Your task to perform on an android device: Open calendar and show me the fourth week of next month Image 0: 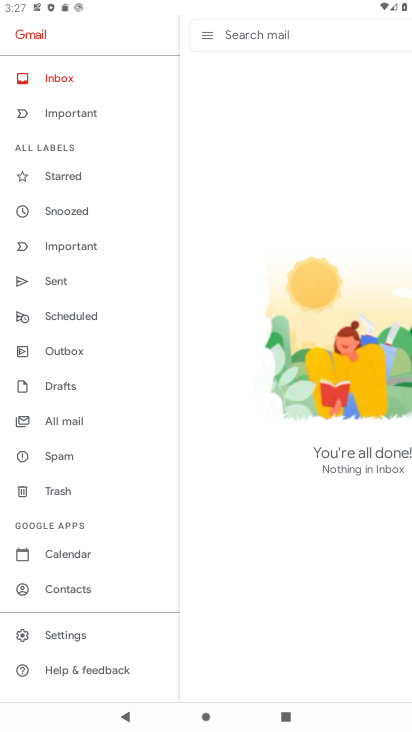
Step 0: press home button
Your task to perform on an android device: Open calendar and show me the fourth week of next month Image 1: 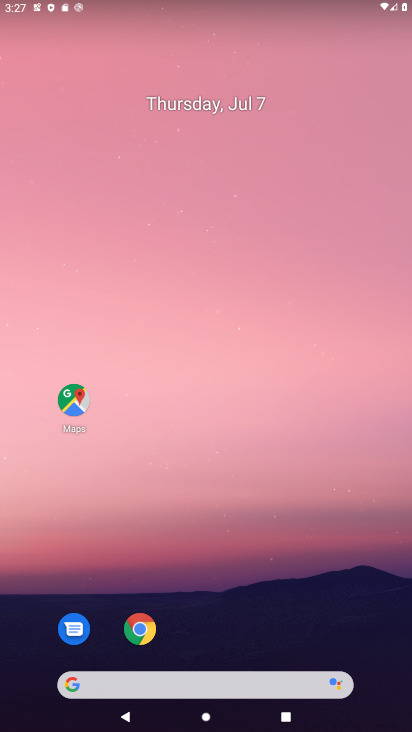
Step 1: drag from (263, 621) to (237, 238)
Your task to perform on an android device: Open calendar and show me the fourth week of next month Image 2: 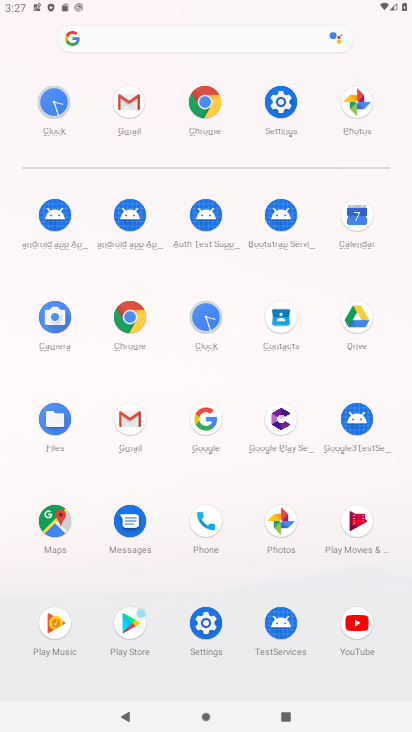
Step 2: click (360, 217)
Your task to perform on an android device: Open calendar and show me the fourth week of next month Image 3: 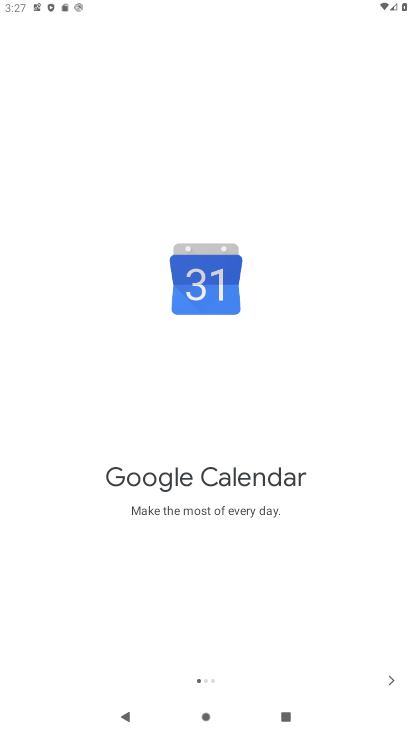
Step 3: click (385, 679)
Your task to perform on an android device: Open calendar and show me the fourth week of next month Image 4: 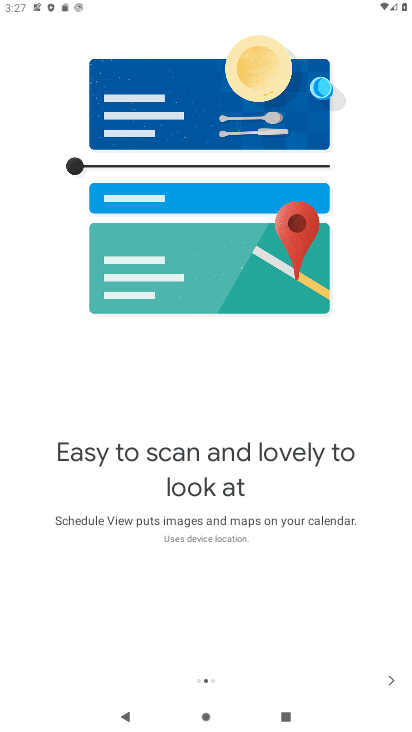
Step 4: click (385, 679)
Your task to perform on an android device: Open calendar and show me the fourth week of next month Image 5: 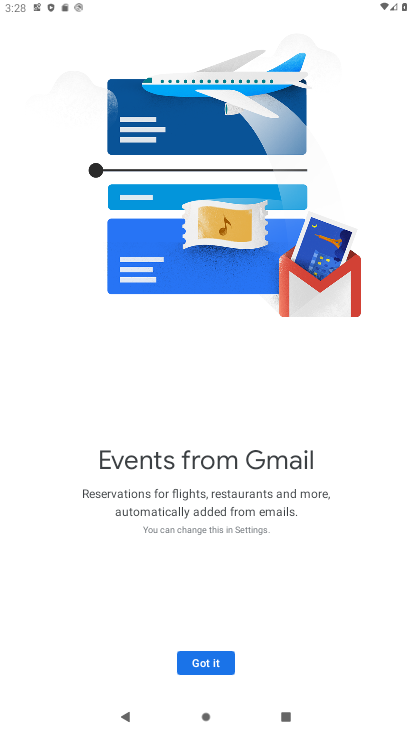
Step 5: click (216, 668)
Your task to perform on an android device: Open calendar and show me the fourth week of next month Image 6: 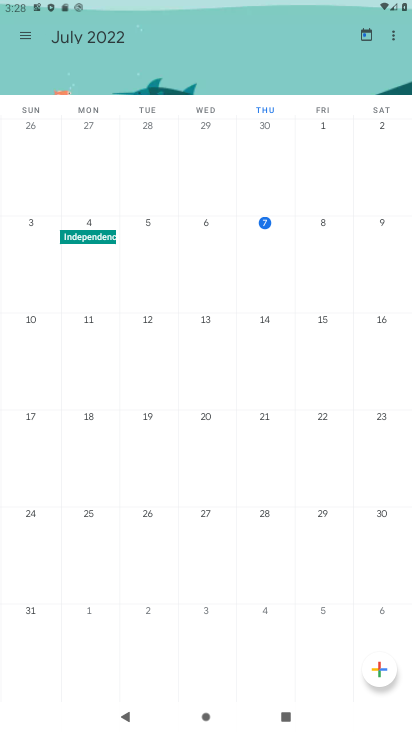
Step 6: task complete